Your task to perform on an android device: Turn on the flashlight Image 0: 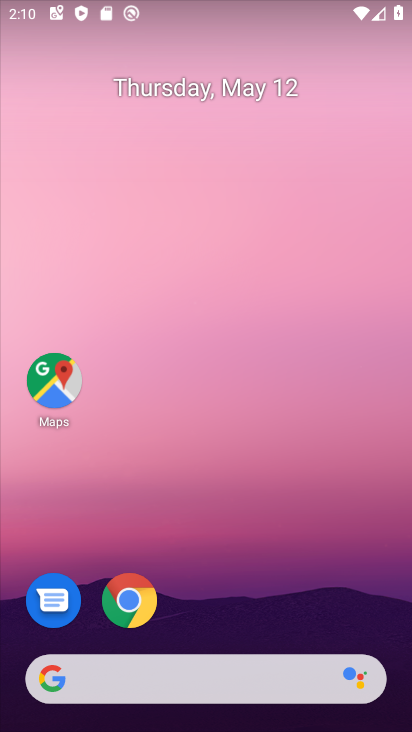
Step 0: drag from (233, 614) to (234, 8)
Your task to perform on an android device: Turn on the flashlight Image 1: 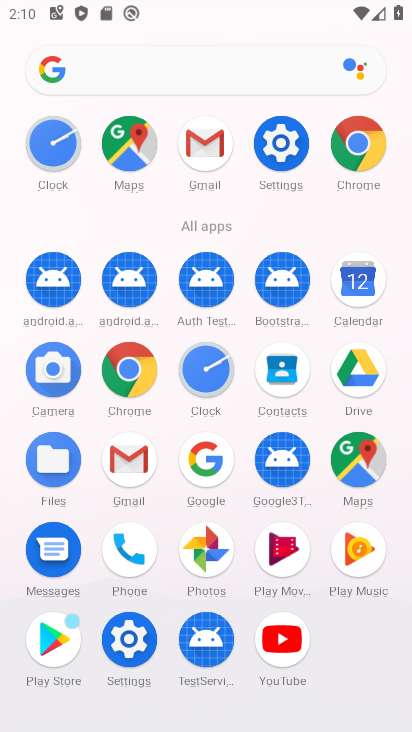
Step 1: click (270, 161)
Your task to perform on an android device: Turn on the flashlight Image 2: 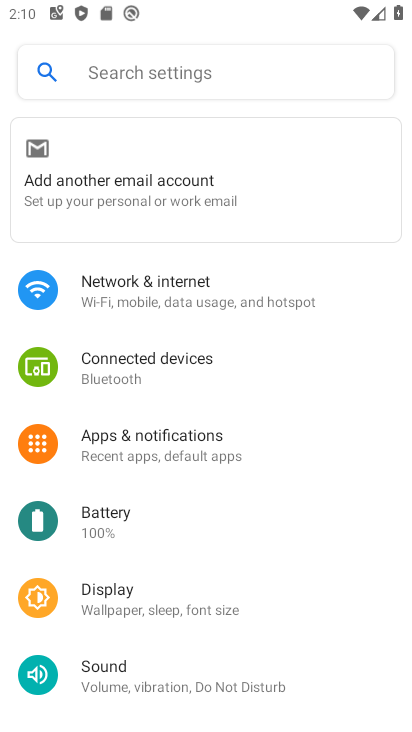
Step 2: click (235, 74)
Your task to perform on an android device: Turn on the flashlight Image 3: 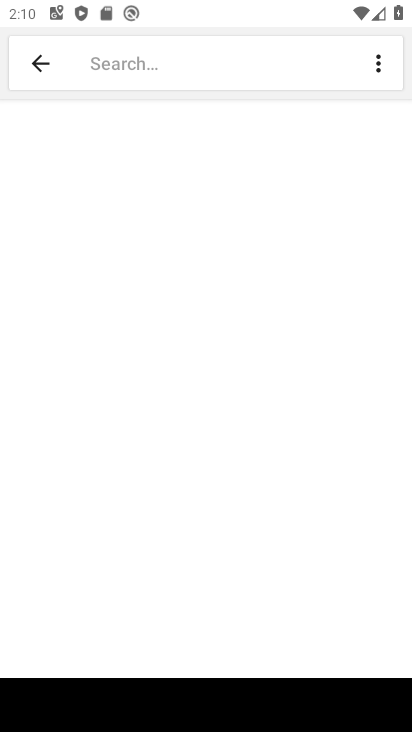
Step 3: type "flashlight"
Your task to perform on an android device: Turn on the flashlight Image 4: 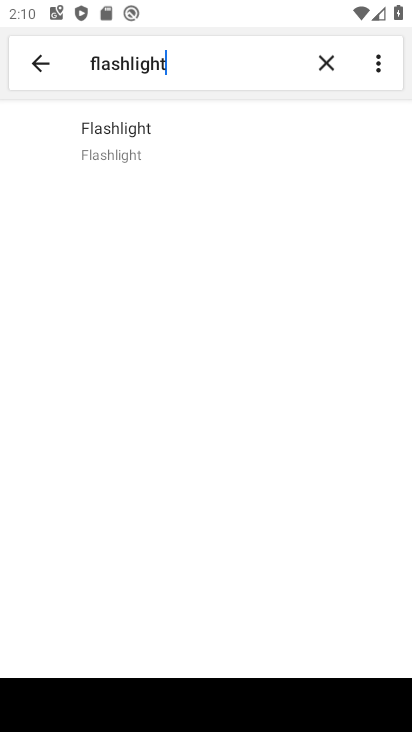
Step 4: click (117, 151)
Your task to perform on an android device: Turn on the flashlight Image 5: 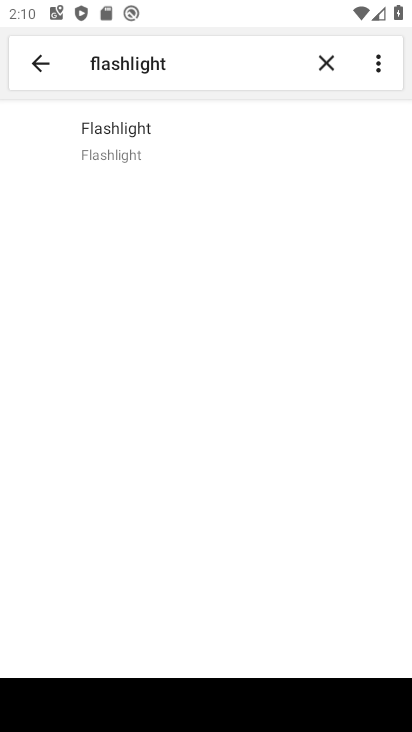
Step 5: click (118, 152)
Your task to perform on an android device: Turn on the flashlight Image 6: 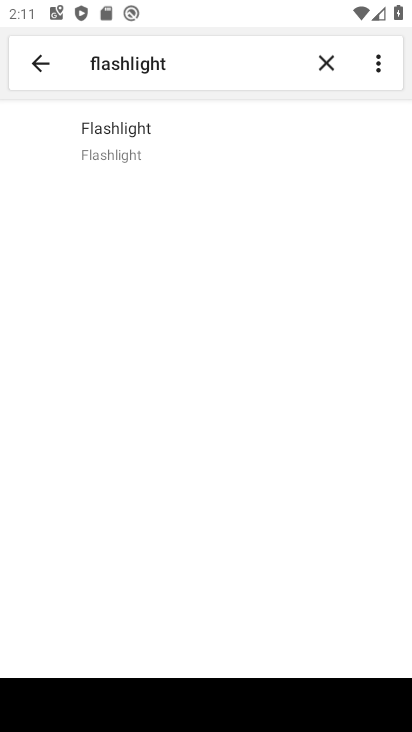
Step 6: task complete